Your task to perform on an android device: turn off translation in the chrome app Image 0: 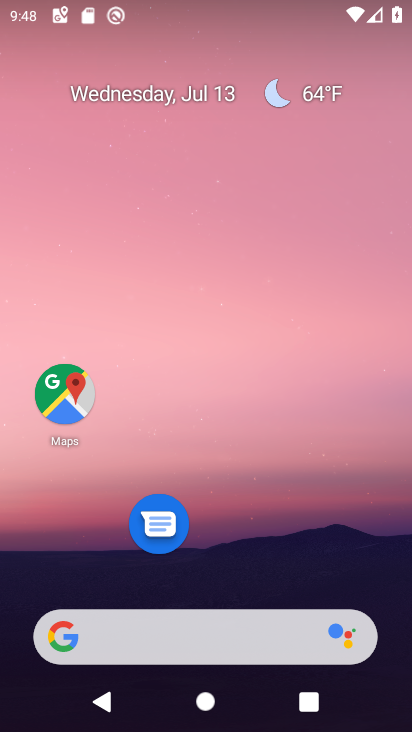
Step 0: drag from (206, 598) to (161, 68)
Your task to perform on an android device: turn off translation in the chrome app Image 1: 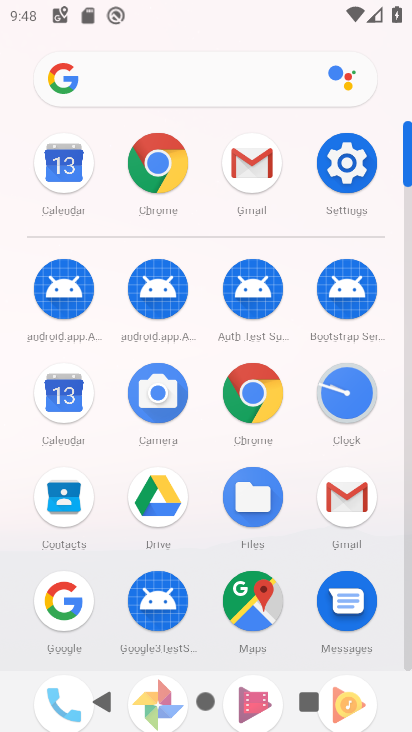
Step 1: click (153, 171)
Your task to perform on an android device: turn off translation in the chrome app Image 2: 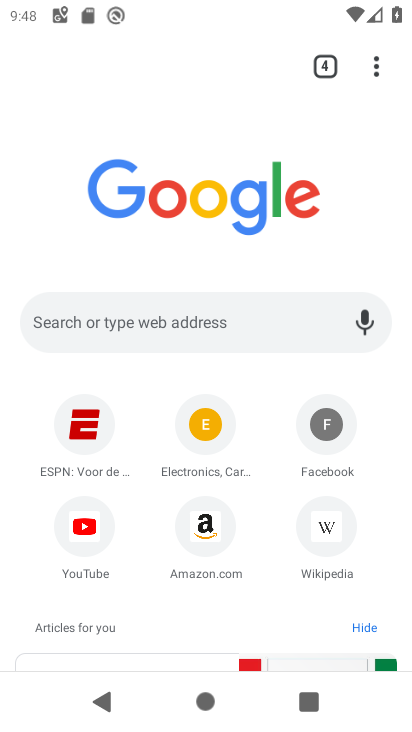
Step 2: click (377, 68)
Your task to perform on an android device: turn off translation in the chrome app Image 3: 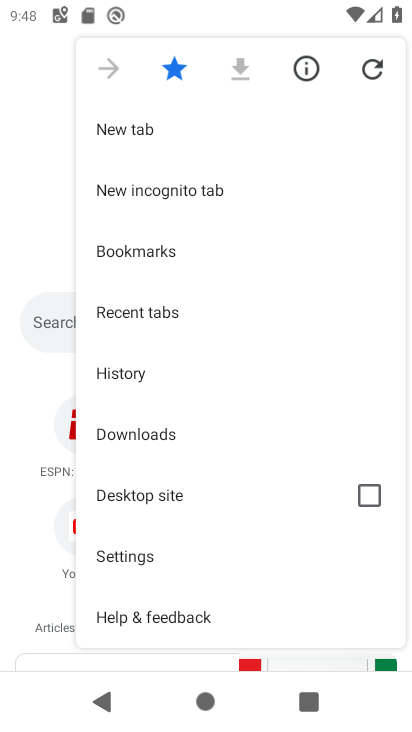
Step 3: click (141, 560)
Your task to perform on an android device: turn off translation in the chrome app Image 4: 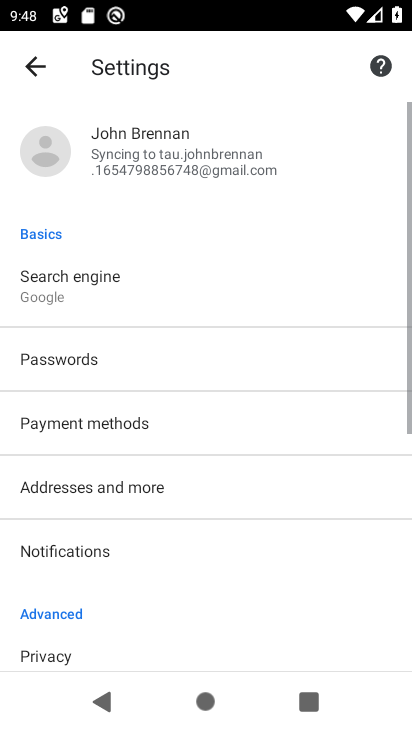
Step 4: drag from (141, 560) to (136, 125)
Your task to perform on an android device: turn off translation in the chrome app Image 5: 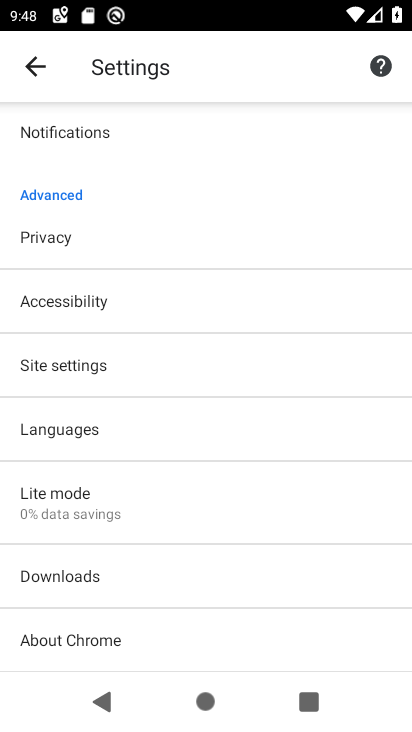
Step 5: click (54, 443)
Your task to perform on an android device: turn off translation in the chrome app Image 6: 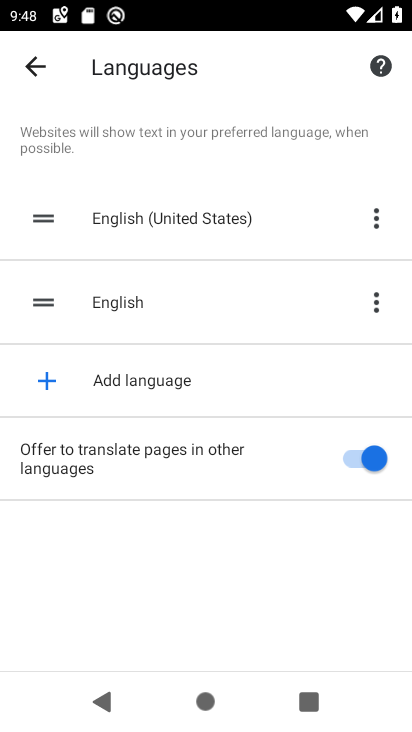
Step 6: click (360, 458)
Your task to perform on an android device: turn off translation in the chrome app Image 7: 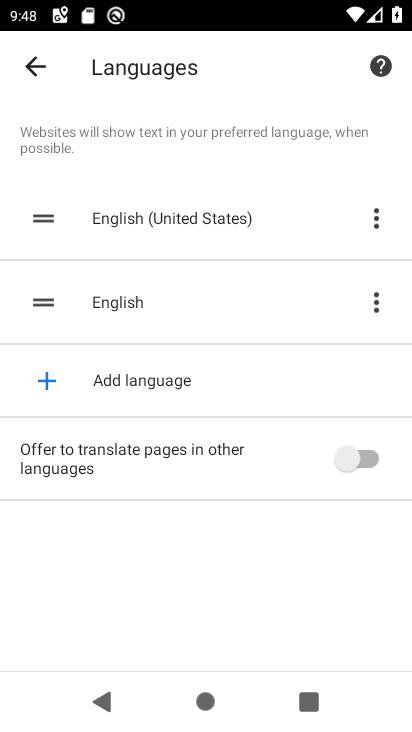
Step 7: task complete